Your task to perform on an android device: turn on sleep mode Image 0: 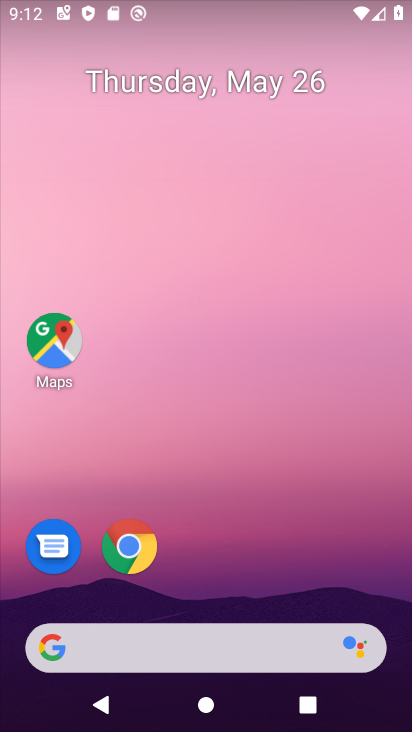
Step 0: drag from (279, 581) to (271, 71)
Your task to perform on an android device: turn on sleep mode Image 1: 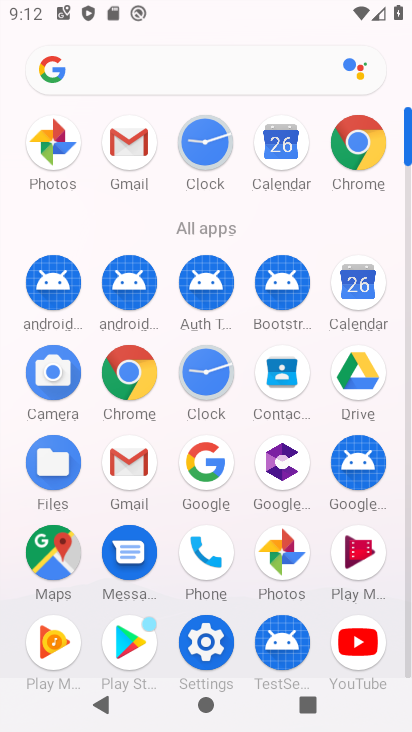
Step 1: click (212, 620)
Your task to perform on an android device: turn on sleep mode Image 2: 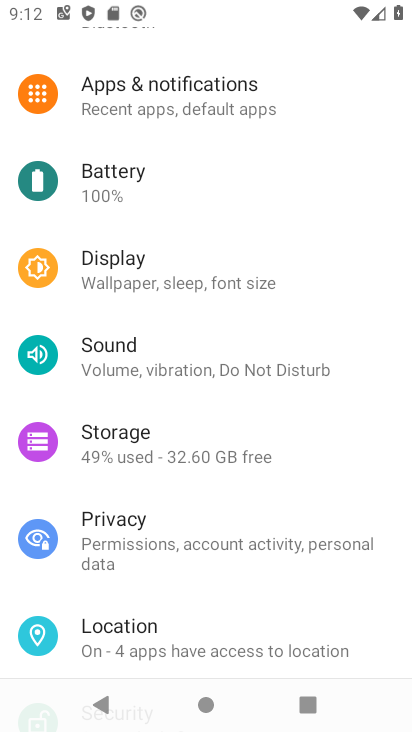
Step 2: drag from (259, 198) to (230, 445)
Your task to perform on an android device: turn on sleep mode Image 3: 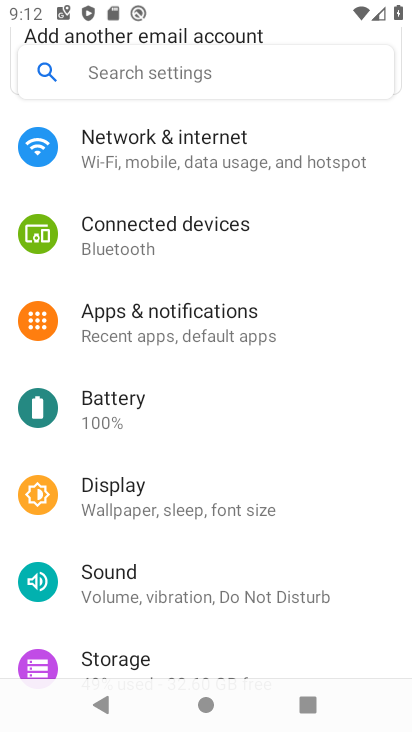
Step 3: click (223, 494)
Your task to perform on an android device: turn on sleep mode Image 4: 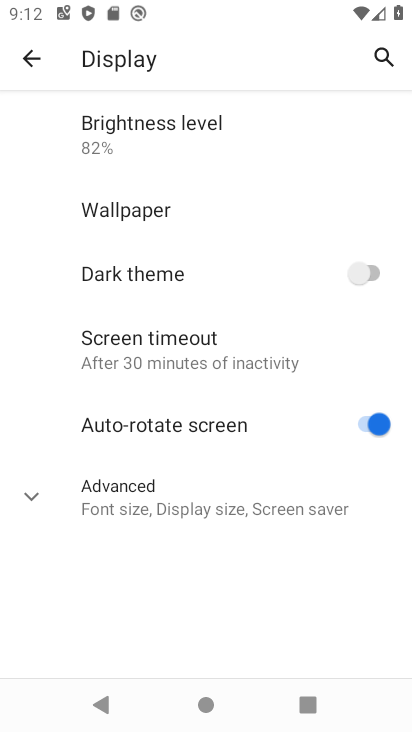
Step 4: click (237, 515)
Your task to perform on an android device: turn on sleep mode Image 5: 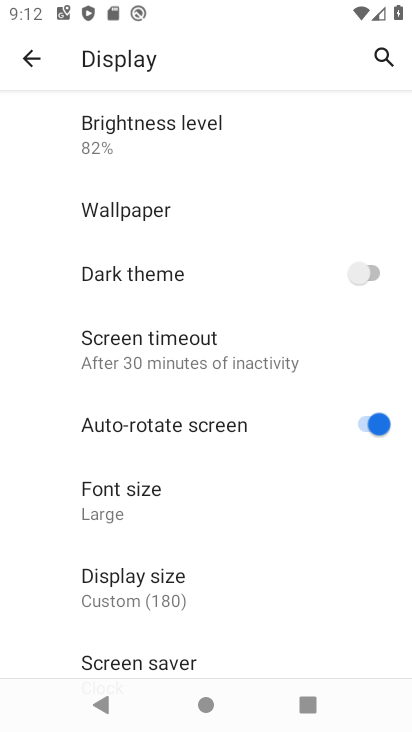
Step 5: task complete